Your task to perform on an android device: change keyboard looks Image 0: 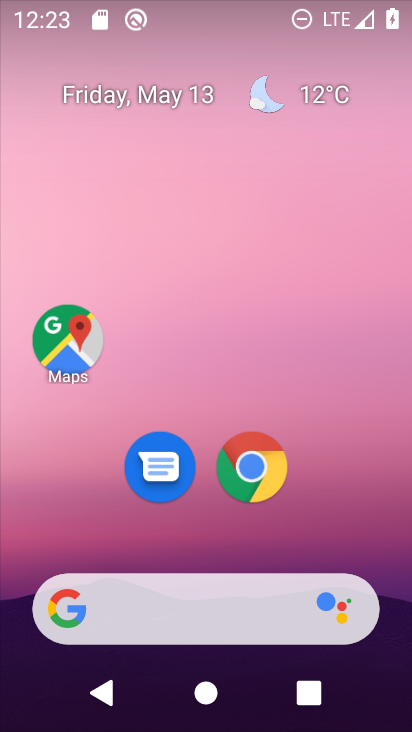
Step 0: drag from (321, 512) to (241, 28)
Your task to perform on an android device: change keyboard looks Image 1: 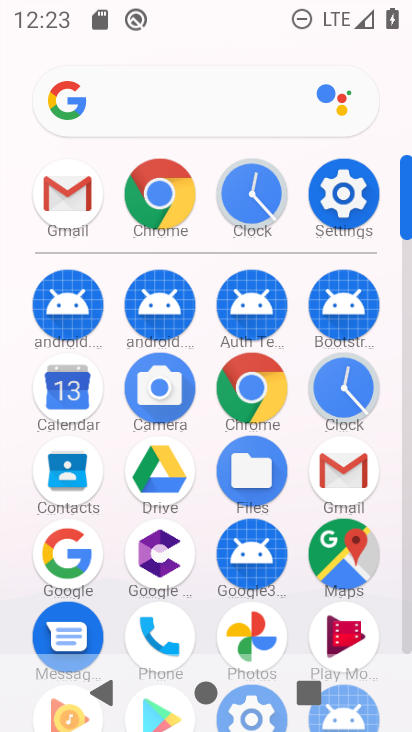
Step 1: drag from (26, 552) to (15, 207)
Your task to perform on an android device: change keyboard looks Image 2: 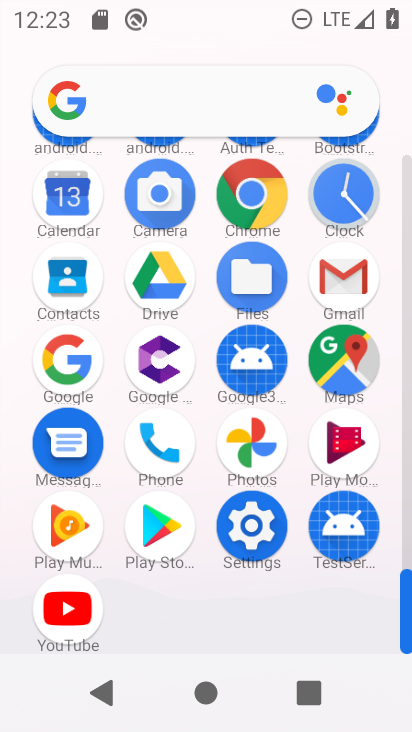
Step 2: click (249, 519)
Your task to perform on an android device: change keyboard looks Image 3: 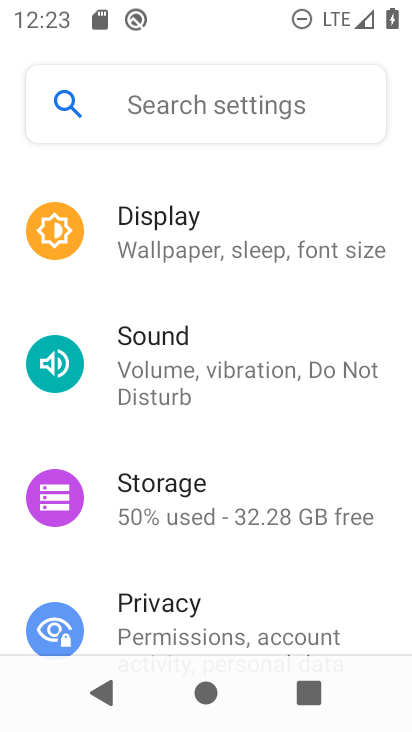
Step 3: drag from (321, 548) to (320, 172)
Your task to perform on an android device: change keyboard looks Image 4: 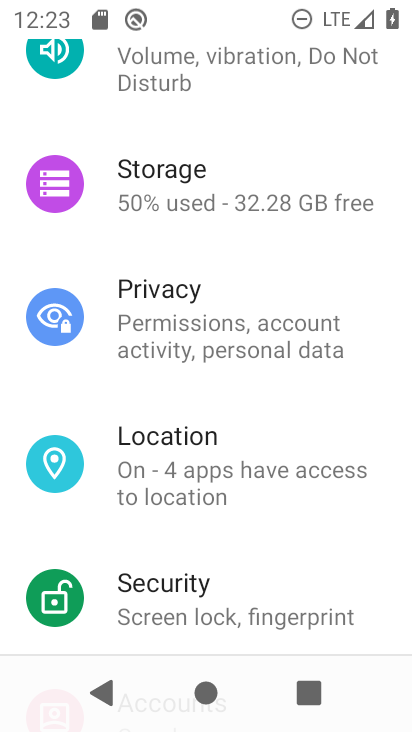
Step 4: drag from (273, 589) to (263, 142)
Your task to perform on an android device: change keyboard looks Image 5: 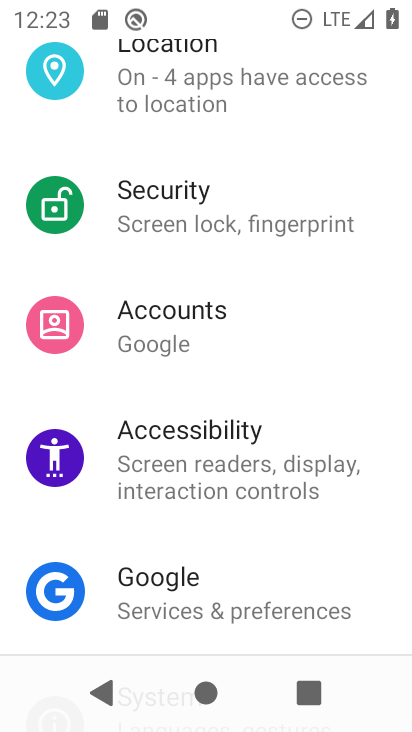
Step 5: drag from (332, 581) to (294, 203)
Your task to perform on an android device: change keyboard looks Image 6: 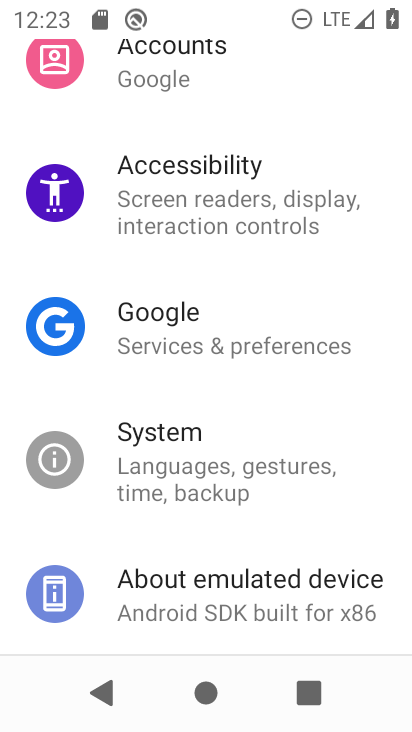
Step 6: drag from (281, 613) to (280, 285)
Your task to perform on an android device: change keyboard looks Image 7: 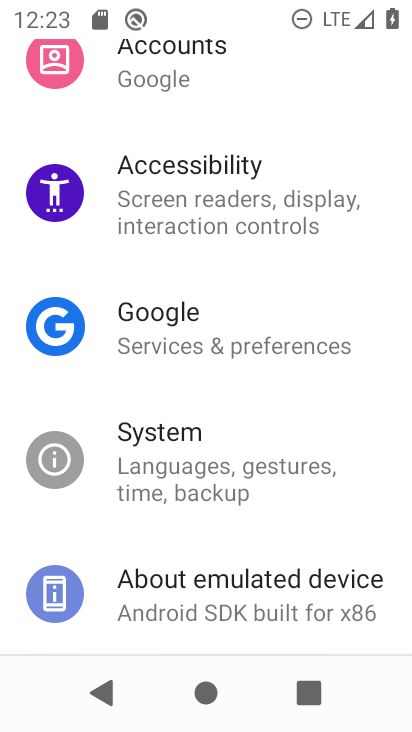
Step 7: click (216, 436)
Your task to perform on an android device: change keyboard looks Image 8: 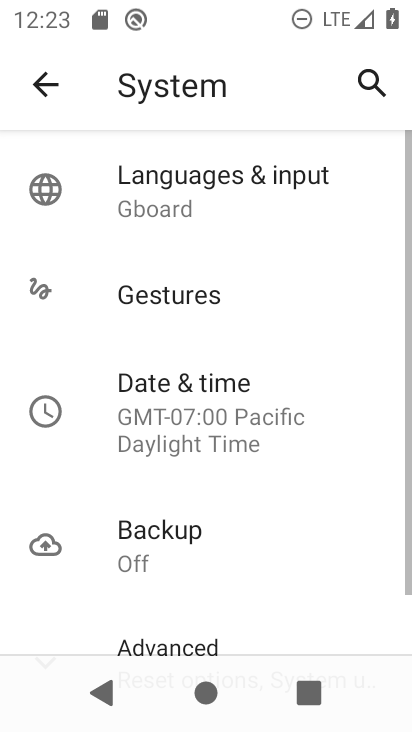
Step 8: click (202, 174)
Your task to perform on an android device: change keyboard looks Image 9: 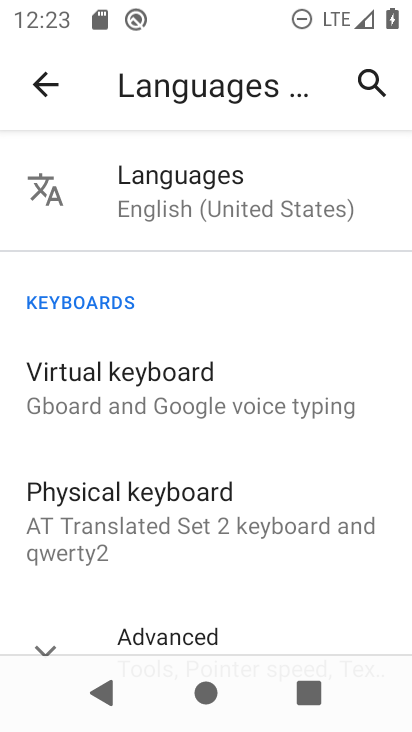
Step 9: click (138, 392)
Your task to perform on an android device: change keyboard looks Image 10: 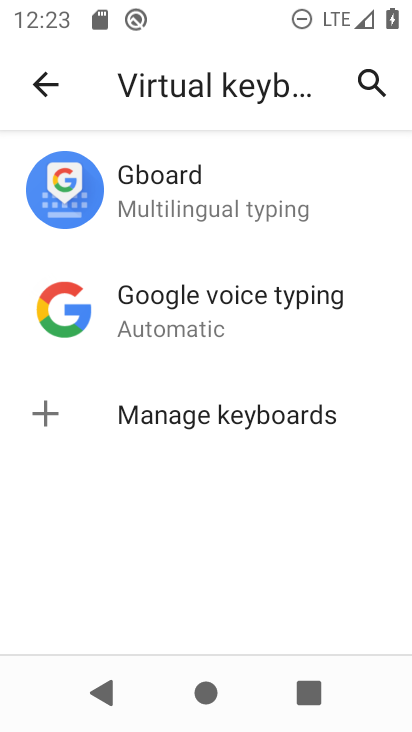
Step 10: click (219, 213)
Your task to perform on an android device: change keyboard looks Image 11: 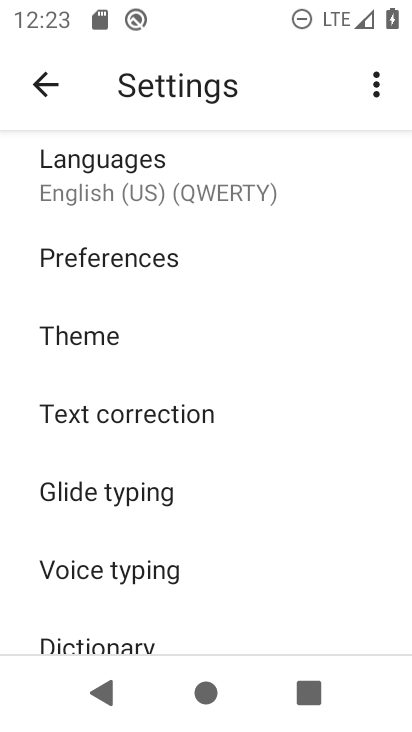
Step 11: click (116, 338)
Your task to perform on an android device: change keyboard looks Image 12: 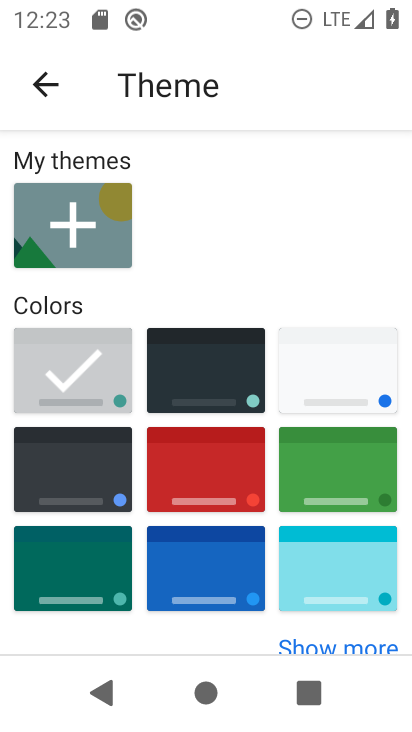
Step 12: click (218, 473)
Your task to perform on an android device: change keyboard looks Image 13: 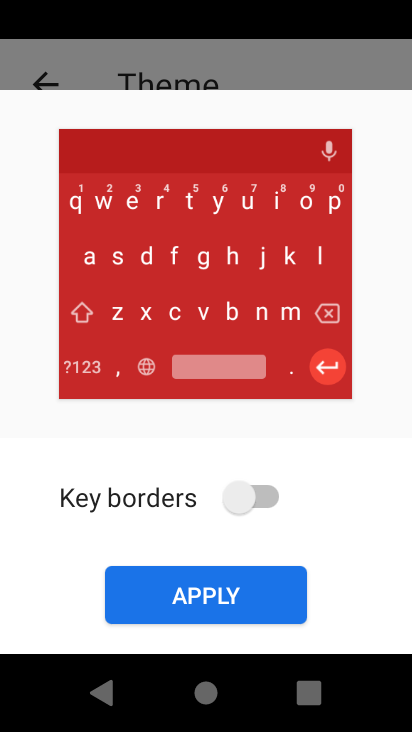
Step 13: click (237, 610)
Your task to perform on an android device: change keyboard looks Image 14: 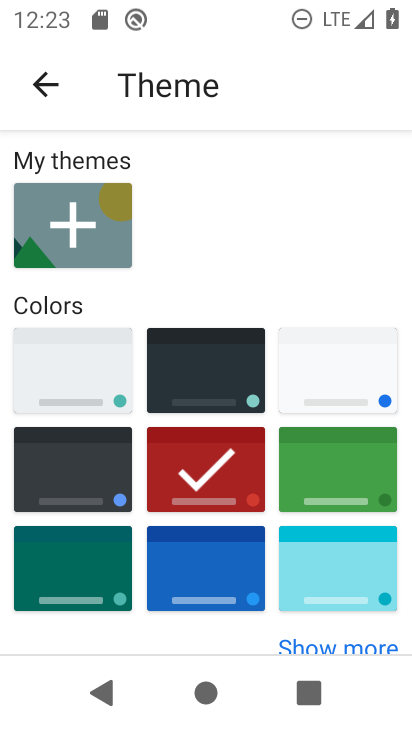
Step 14: task complete